Your task to perform on an android device: toggle translation in the chrome app Image 0: 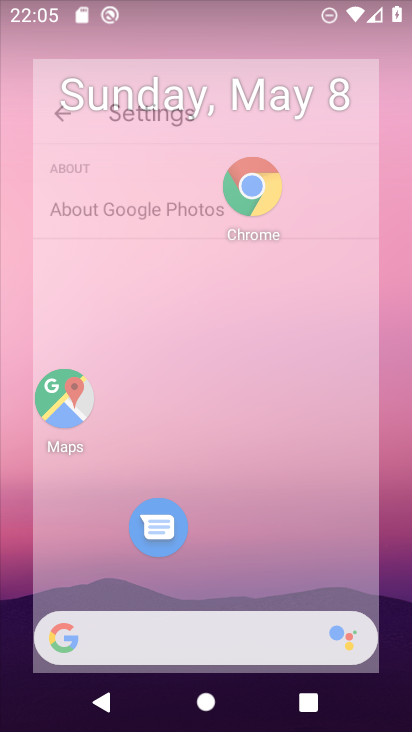
Step 0: drag from (255, 578) to (314, 298)
Your task to perform on an android device: toggle translation in the chrome app Image 1: 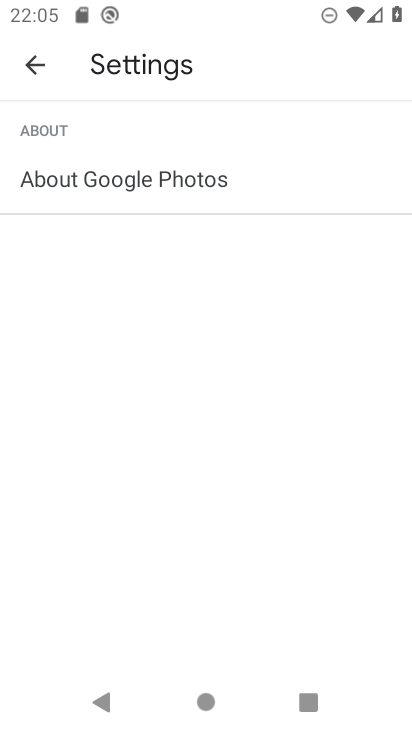
Step 1: press home button
Your task to perform on an android device: toggle translation in the chrome app Image 2: 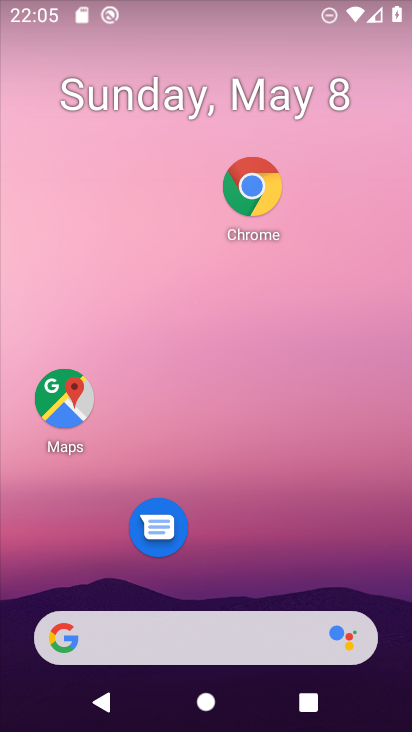
Step 2: drag from (284, 586) to (357, 270)
Your task to perform on an android device: toggle translation in the chrome app Image 3: 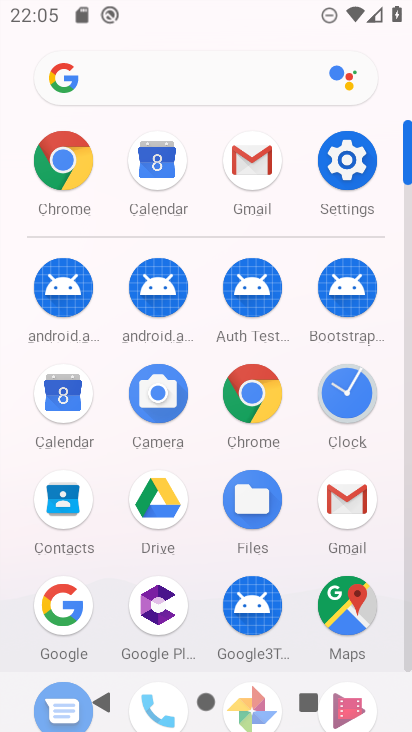
Step 3: click (249, 391)
Your task to perform on an android device: toggle translation in the chrome app Image 4: 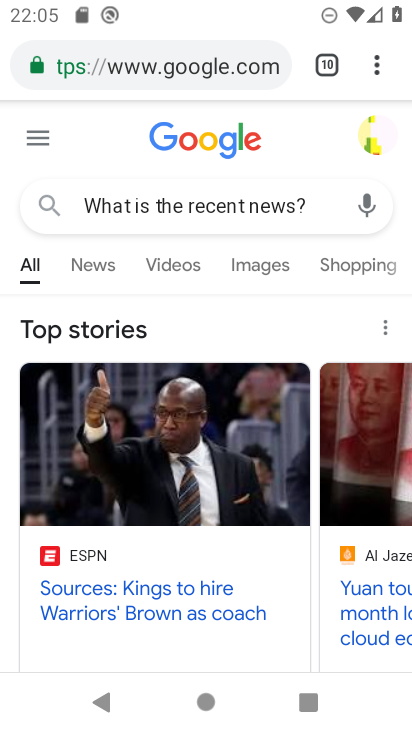
Step 4: click (362, 56)
Your task to perform on an android device: toggle translation in the chrome app Image 5: 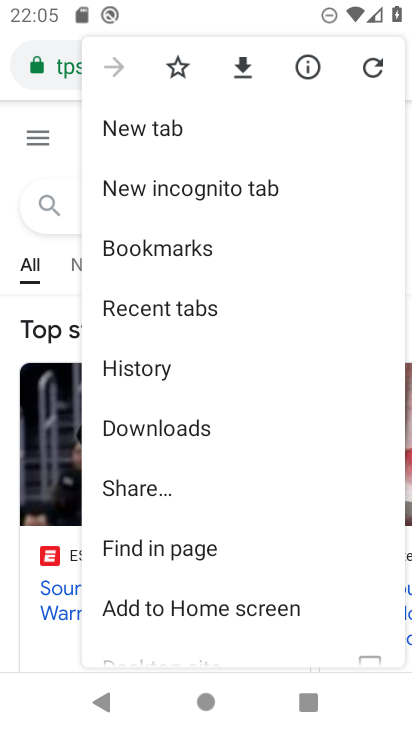
Step 5: drag from (238, 593) to (365, 158)
Your task to perform on an android device: toggle translation in the chrome app Image 6: 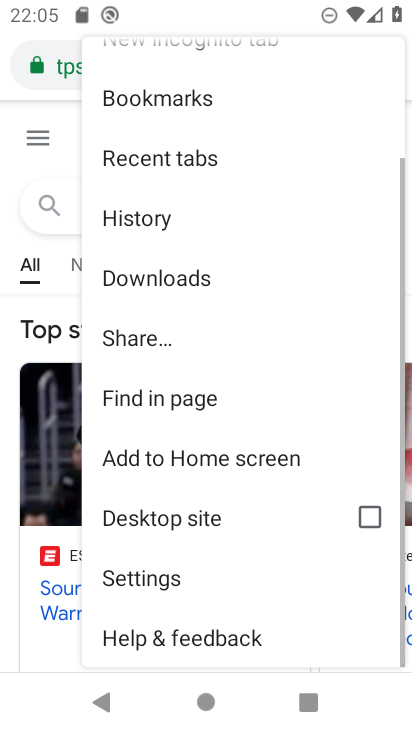
Step 6: drag from (270, 538) to (317, 237)
Your task to perform on an android device: toggle translation in the chrome app Image 7: 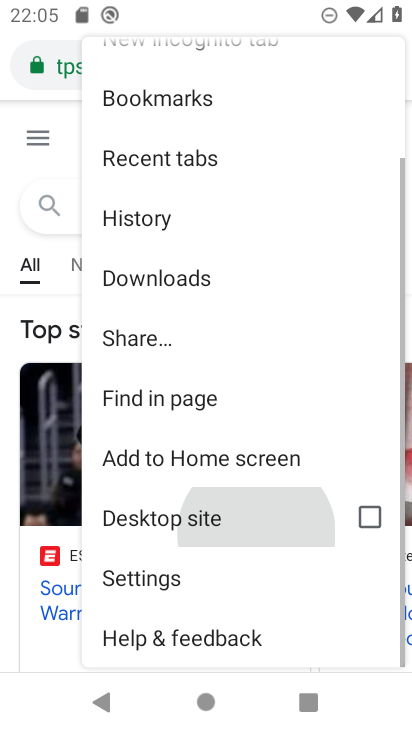
Step 7: drag from (229, 436) to (296, 146)
Your task to perform on an android device: toggle translation in the chrome app Image 8: 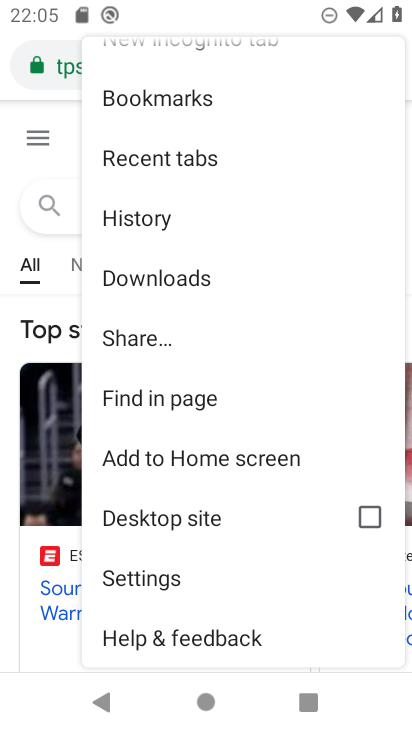
Step 8: click (162, 582)
Your task to perform on an android device: toggle translation in the chrome app Image 9: 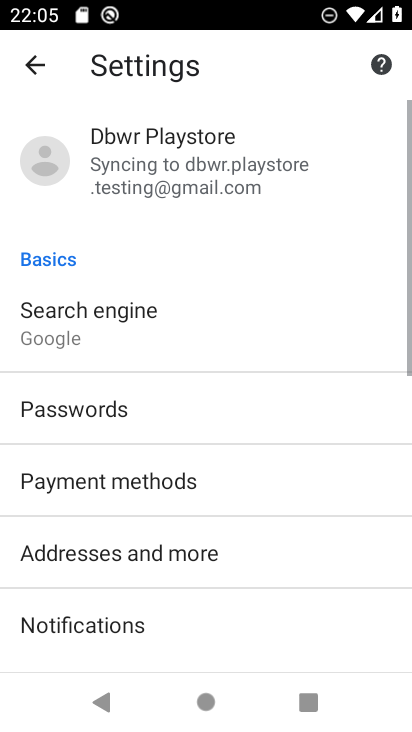
Step 9: drag from (195, 600) to (325, 101)
Your task to perform on an android device: toggle translation in the chrome app Image 10: 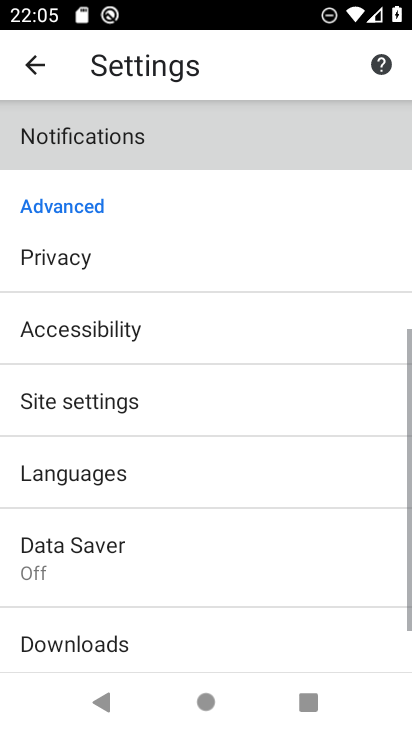
Step 10: drag from (200, 531) to (250, 232)
Your task to perform on an android device: toggle translation in the chrome app Image 11: 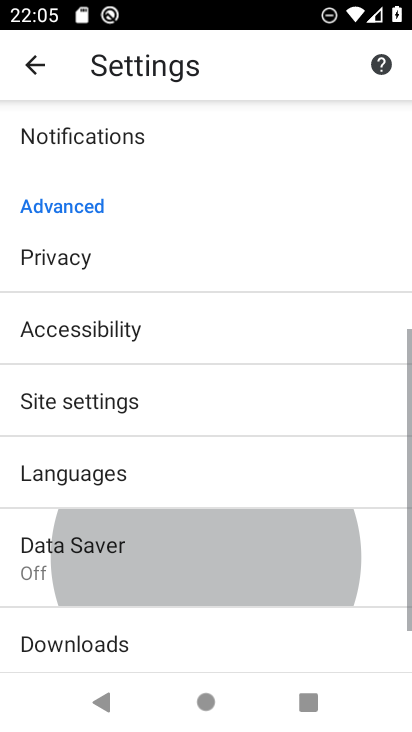
Step 11: drag from (180, 489) to (210, 149)
Your task to perform on an android device: toggle translation in the chrome app Image 12: 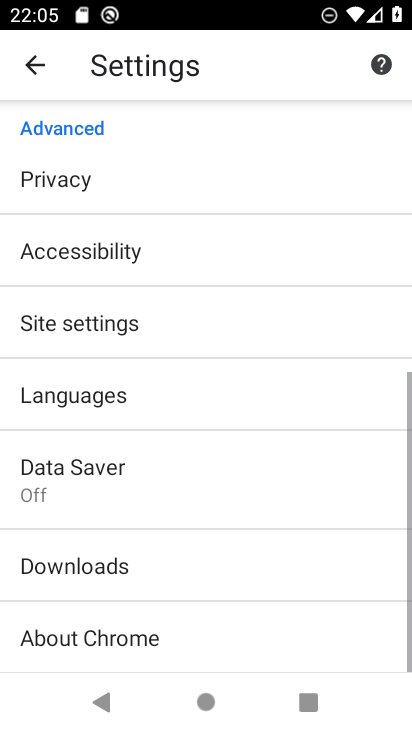
Step 12: drag from (204, 489) to (245, 204)
Your task to perform on an android device: toggle translation in the chrome app Image 13: 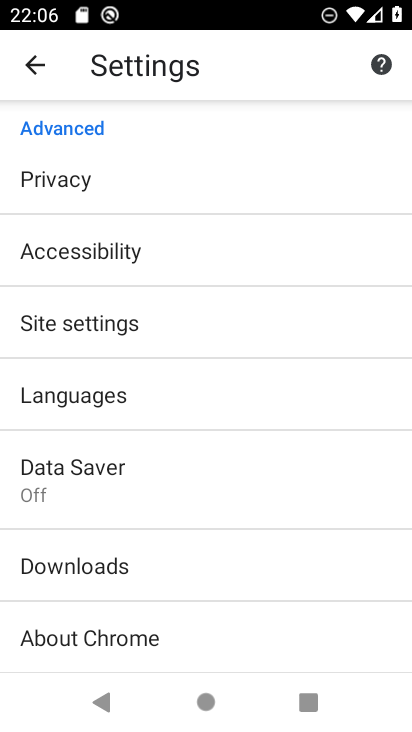
Step 13: click (168, 379)
Your task to perform on an android device: toggle translation in the chrome app Image 14: 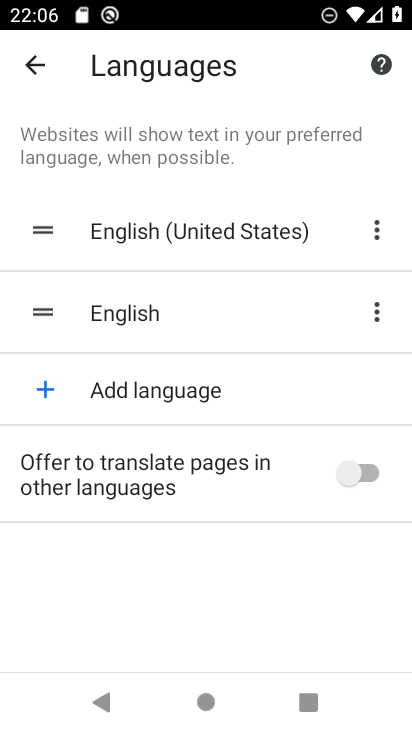
Step 14: click (361, 471)
Your task to perform on an android device: toggle translation in the chrome app Image 15: 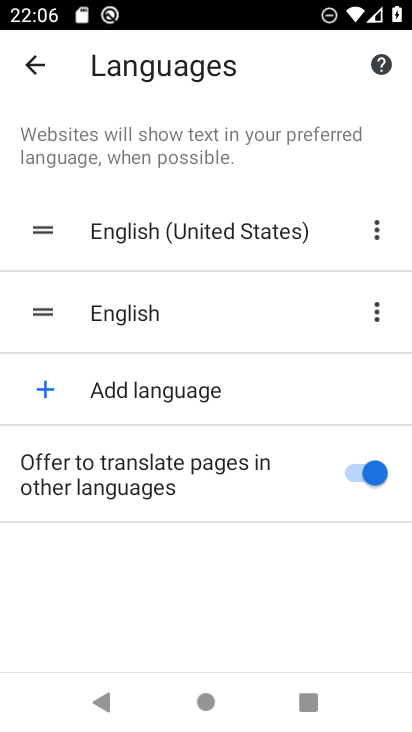
Step 15: task complete